Your task to perform on an android device: choose inbox layout in the gmail app Image 0: 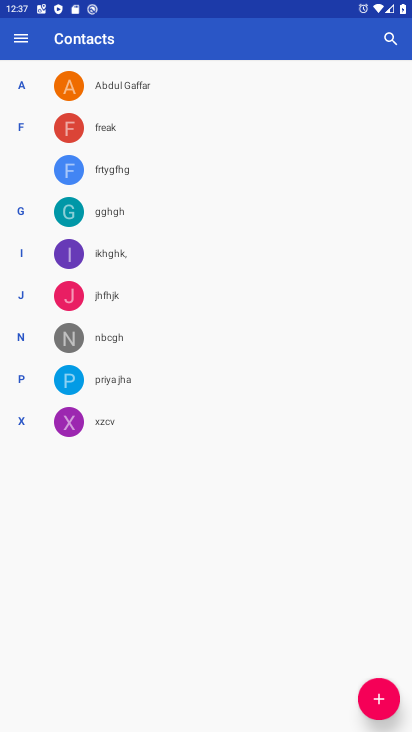
Step 0: press home button
Your task to perform on an android device: choose inbox layout in the gmail app Image 1: 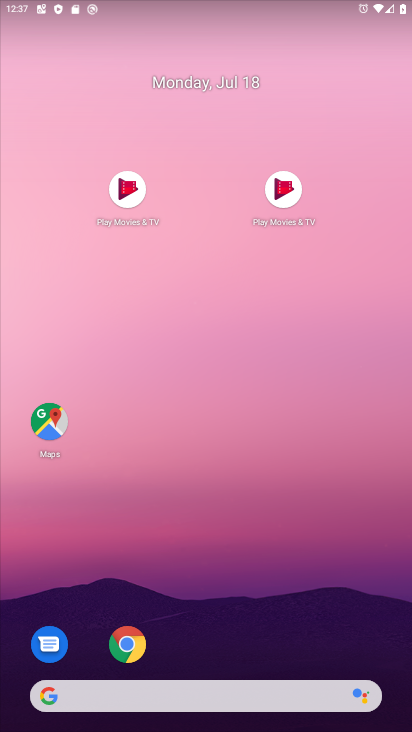
Step 1: drag from (295, 660) to (258, 159)
Your task to perform on an android device: choose inbox layout in the gmail app Image 2: 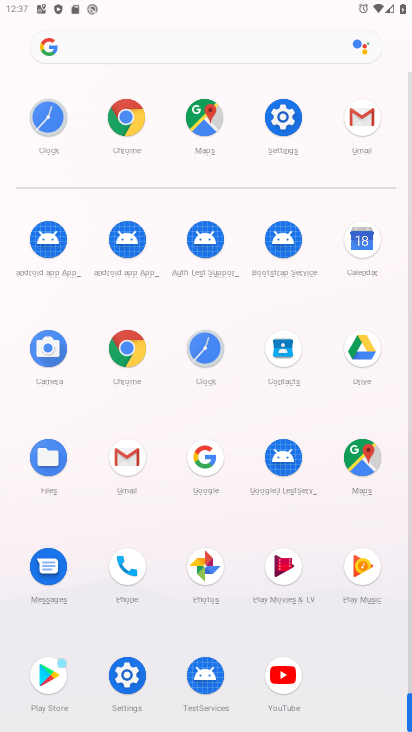
Step 2: click (362, 124)
Your task to perform on an android device: choose inbox layout in the gmail app Image 3: 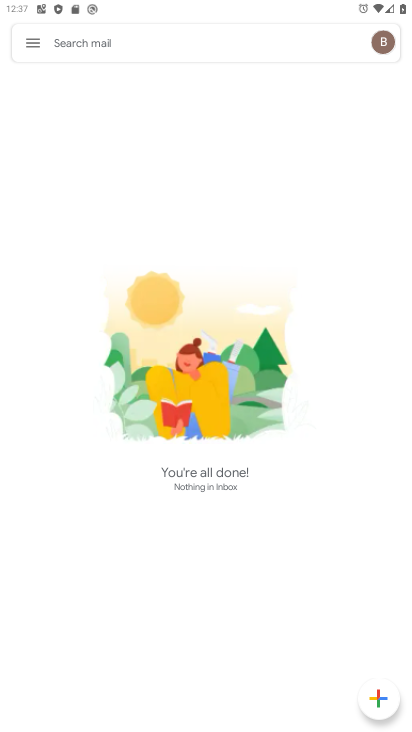
Step 3: click (26, 46)
Your task to perform on an android device: choose inbox layout in the gmail app Image 4: 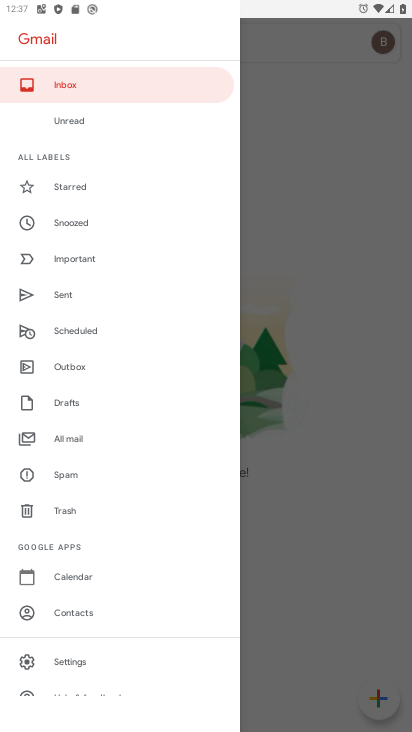
Step 4: drag from (106, 614) to (121, 280)
Your task to perform on an android device: choose inbox layout in the gmail app Image 5: 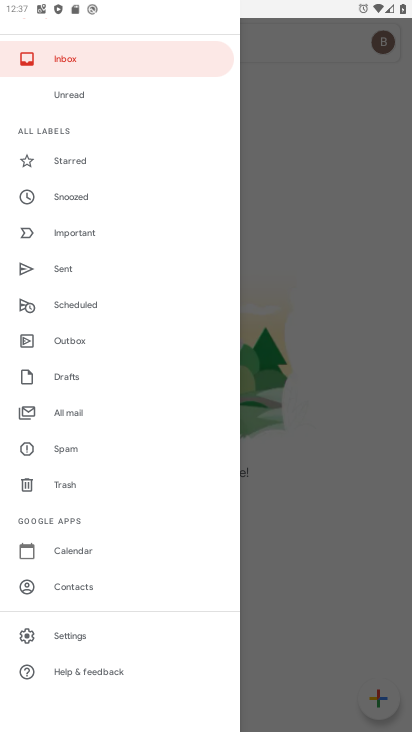
Step 5: click (74, 642)
Your task to perform on an android device: choose inbox layout in the gmail app Image 6: 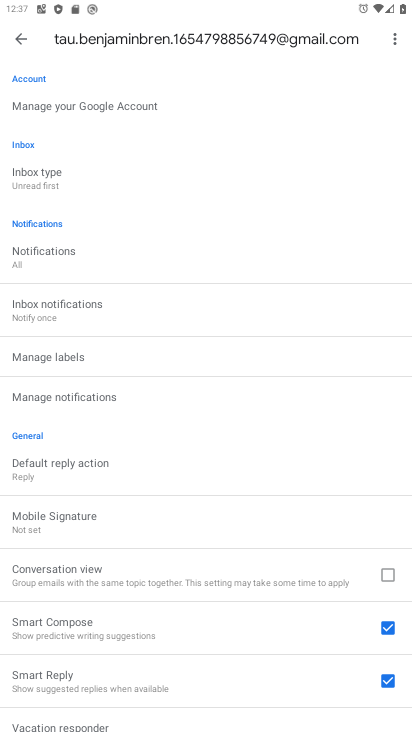
Step 6: click (62, 176)
Your task to perform on an android device: choose inbox layout in the gmail app Image 7: 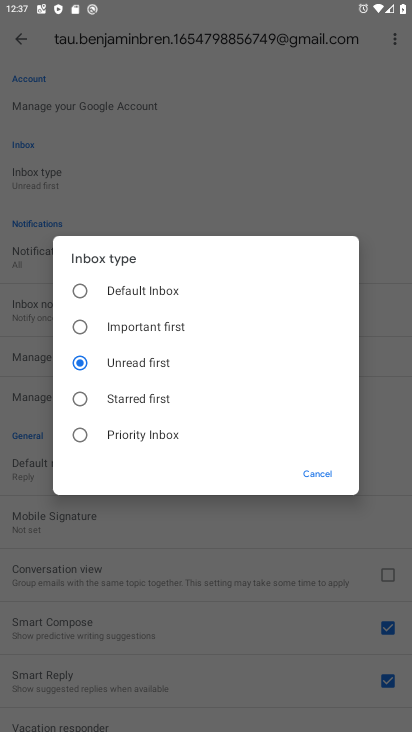
Step 7: task complete